Your task to perform on an android device: turn off location history Image 0: 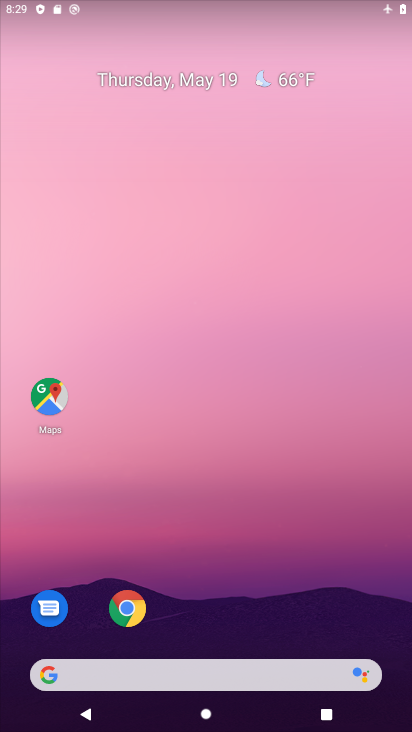
Step 0: drag from (284, 721) to (160, 243)
Your task to perform on an android device: turn off location history Image 1: 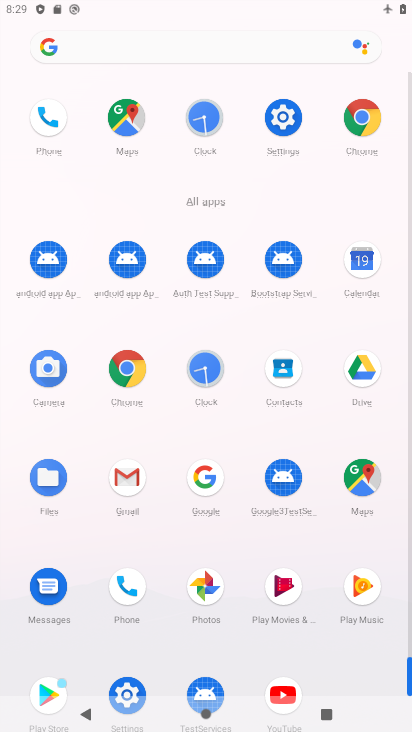
Step 1: click (367, 469)
Your task to perform on an android device: turn off location history Image 2: 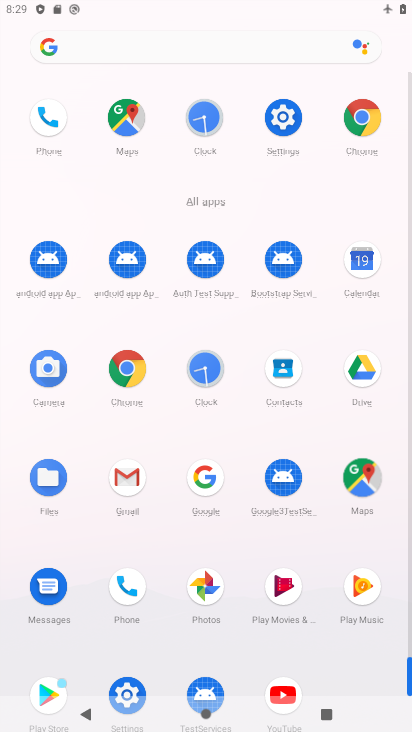
Step 2: click (367, 469)
Your task to perform on an android device: turn off location history Image 3: 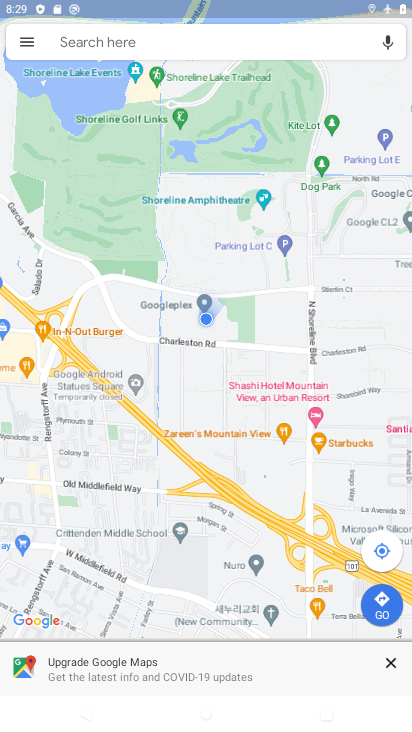
Step 3: click (25, 45)
Your task to perform on an android device: turn off location history Image 4: 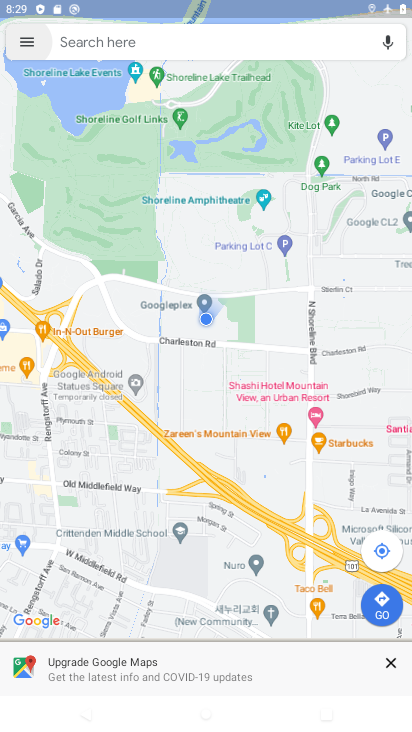
Step 4: click (25, 45)
Your task to perform on an android device: turn off location history Image 5: 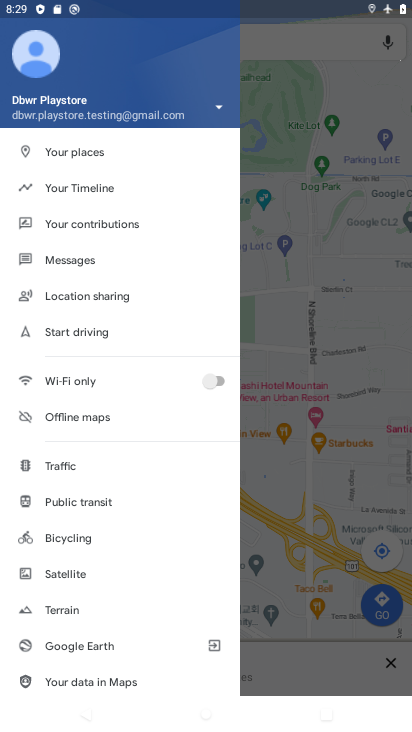
Step 5: click (71, 191)
Your task to perform on an android device: turn off location history Image 6: 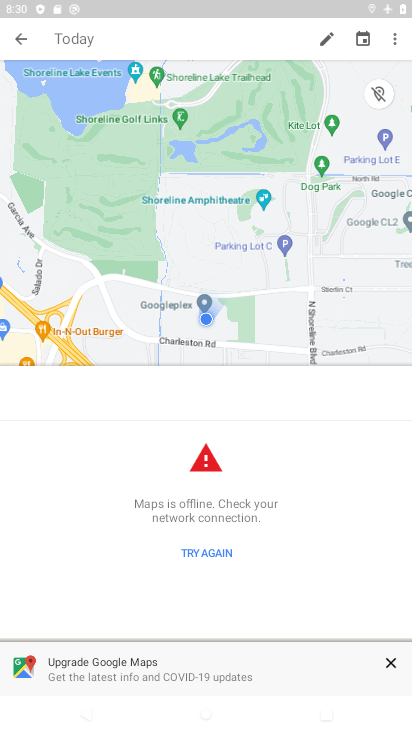
Step 6: task complete